Your task to perform on an android device: turn on showing notifications on the lock screen Image 0: 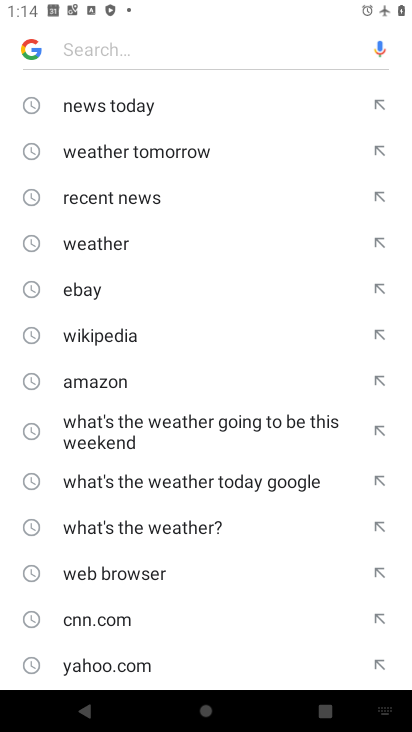
Step 0: press home button
Your task to perform on an android device: turn on showing notifications on the lock screen Image 1: 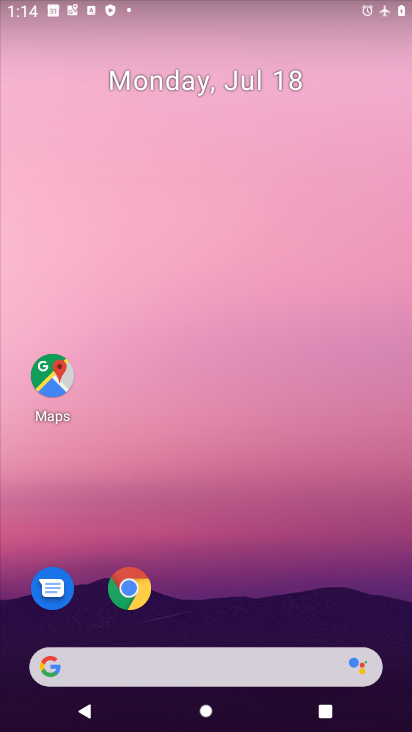
Step 1: drag from (199, 529) to (205, 201)
Your task to perform on an android device: turn on showing notifications on the lock screen Image 2: 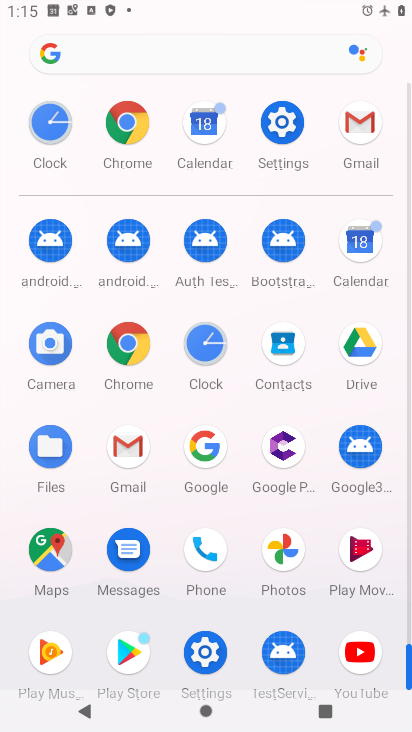
Step 2: click (279, 152)
Your task to perform on an android device: turn on showing notifications on the lock screen Image 3: 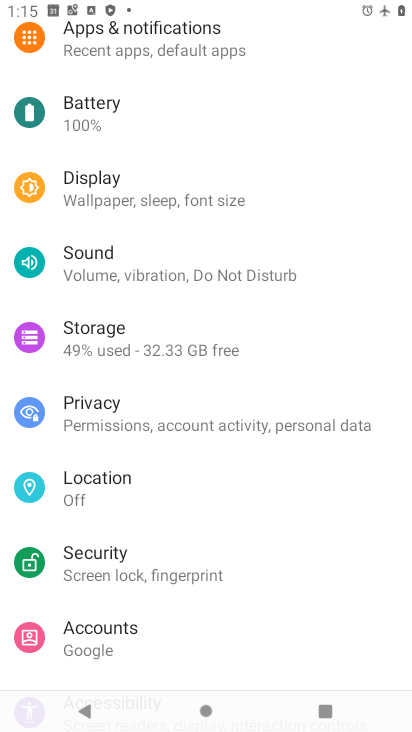
Step 3: drag from (205, 316) to (183, 512)
Your task to perform on an android device: turn on showing notifications on the lock screen Image 4: 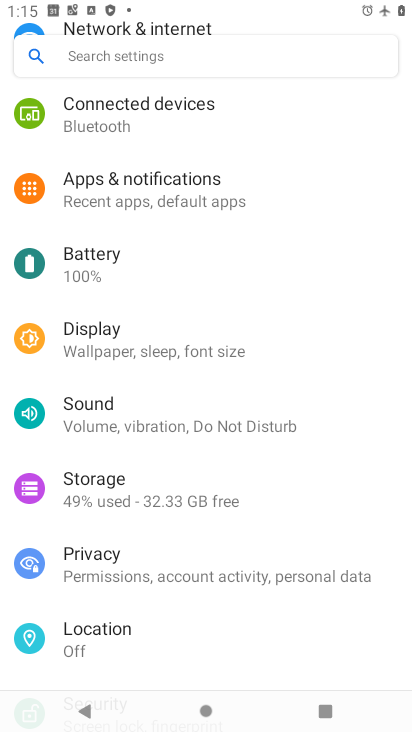
Step 4: click (191, 203)
Your task to perform on an android device: turn on showing notifications on the lock screen Image 5: 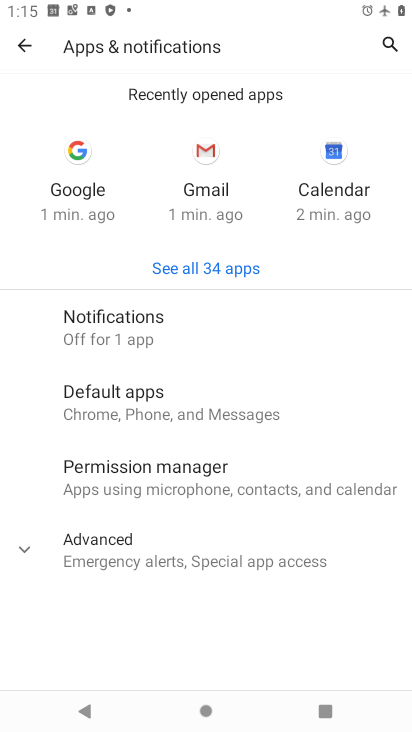
Step 5: click (103, 336)
Your task to perform on an android device: turn on showing notifications on the lock screen Image 6: 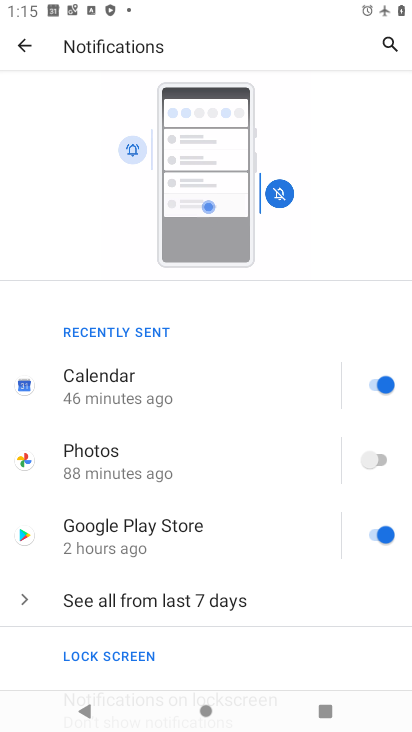
Step 6: drag from (161, 648) to (202, 342)
Your task to perform on an android device: turn on showing notifications on the lock screen Image 7: 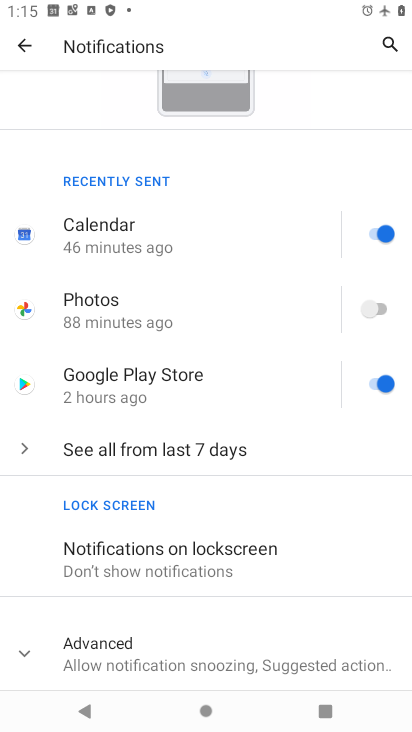
Step 7: click (196, 576)
Your task to perform on an android device: turn on showing notifications on the lock screen Image 8: 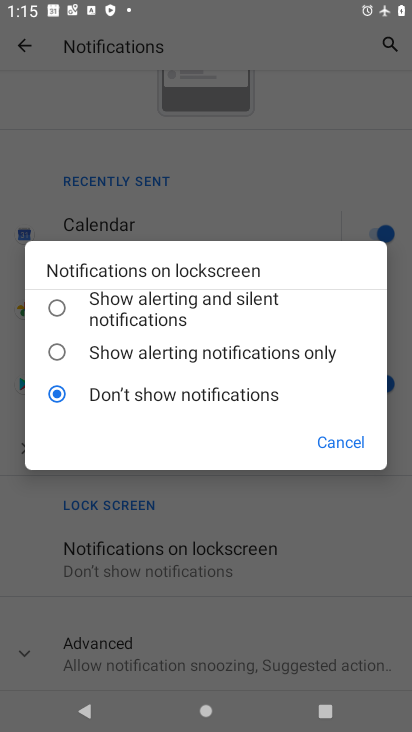
Step 8: click (55, 305)
Your task to perform on an android device: turn on showing notifications on the lock screen Image 9: 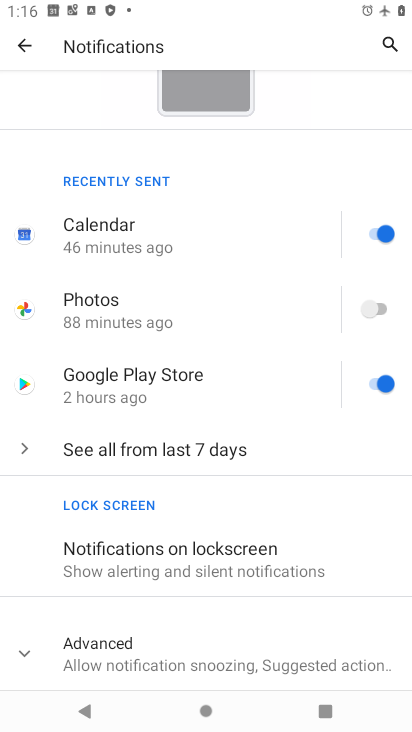
Step 9: task complete